Your task to perform on an android device: See recent photos Image 0: 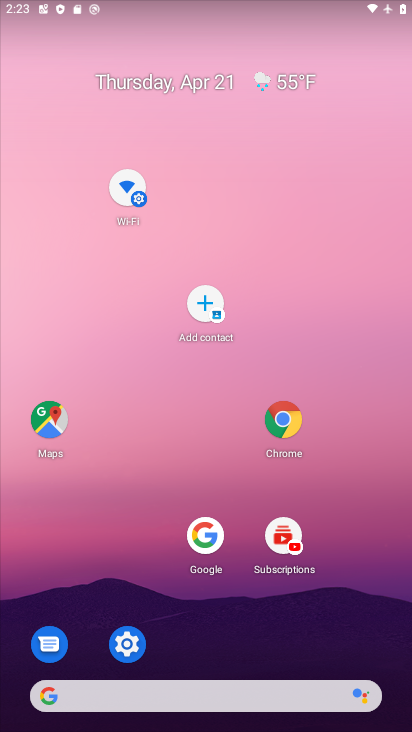
Step 0: drag from (299, 678) to (85, 200)
Your task to perform on an android device: See recent photos Image 1: 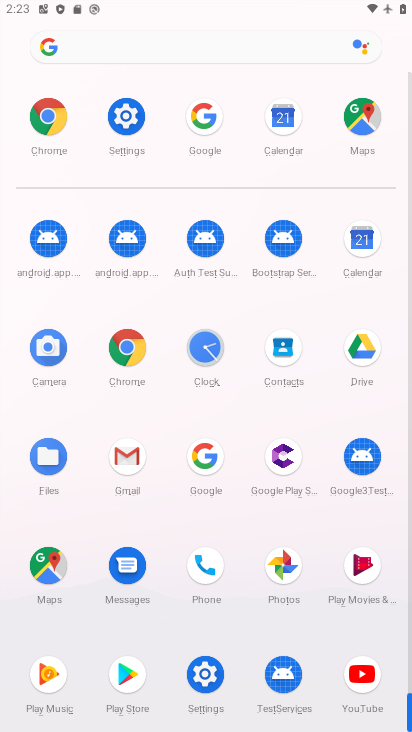
Step 1: click (284, 571)
Your task to perform on an android device: See recent photos Image 2: 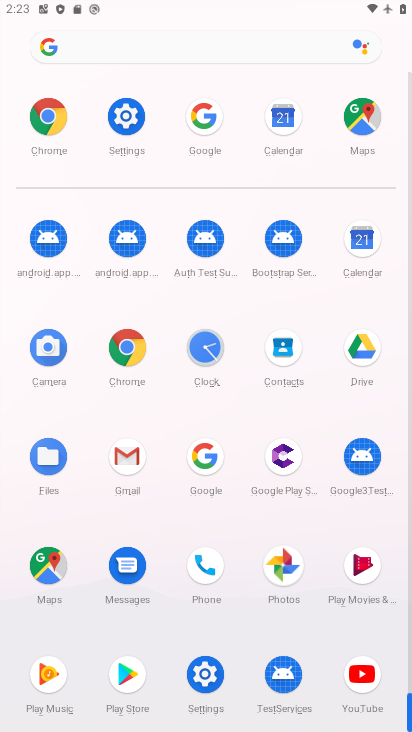
Step 2: click (284, 571)
Your task to perform on an android device: See recent photos Image 3: 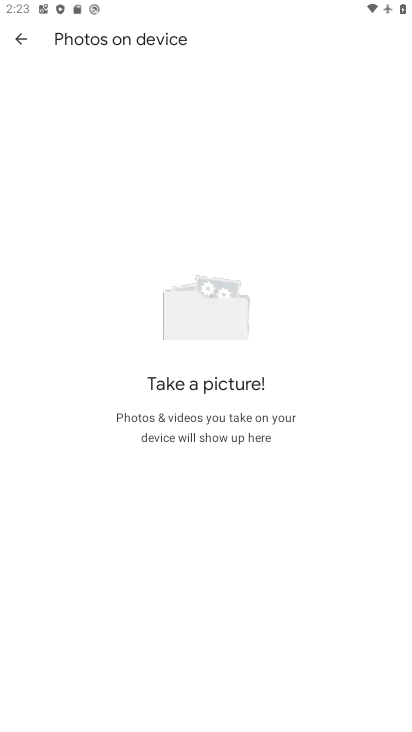
Step 3: click (20, 38)
Your task to perform on an android device: See recent photos Image 4: 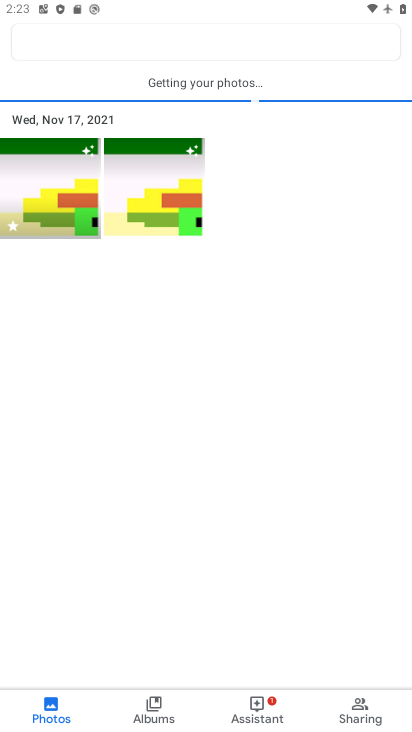
Step 4: click (20, 38)
Your task to perform on an android device: See recent photos Image 5: 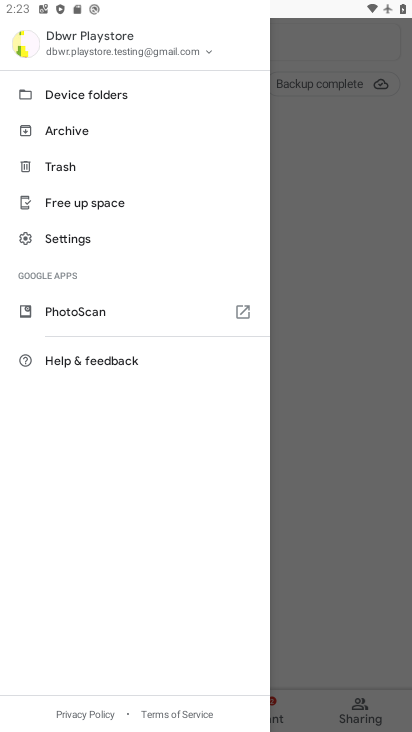
Step 5: click (311, 327)
Your task to perform on an android device: See recent photos Image 6: 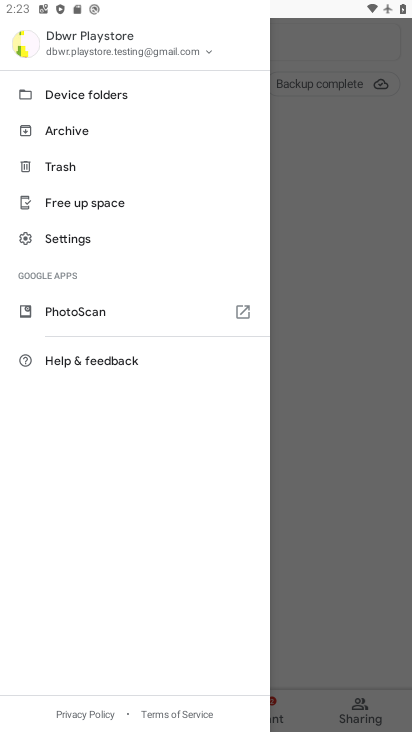
Step 6: click (311, 327)
Your task to perform on an android device: See recent photos Image 7: 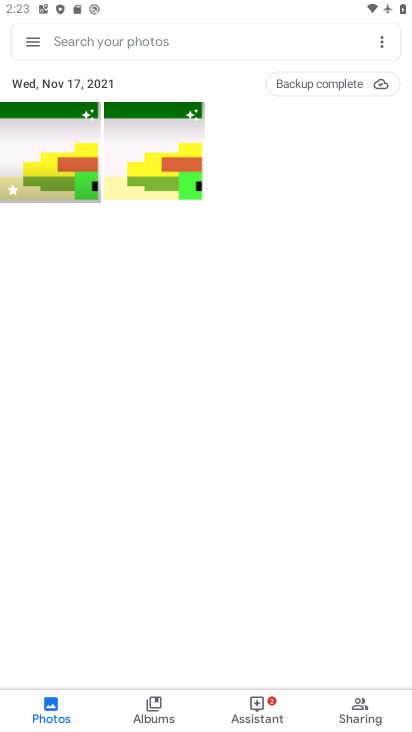
Step 7: click (311, 327)
Your task to perform on an android device: See recent photos Image 8: 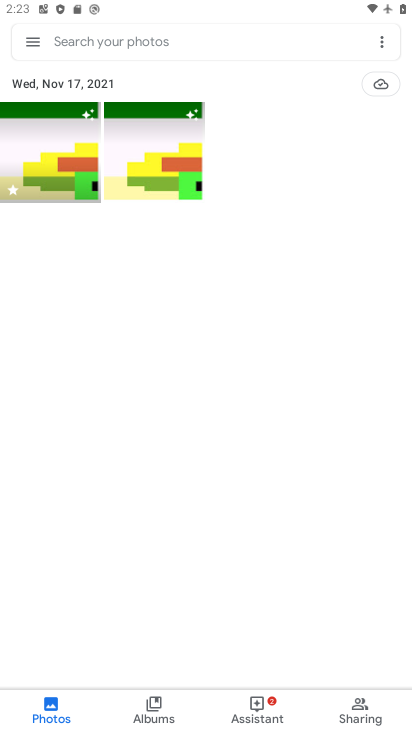
Step 8: task complete